Your task to perform on an android device: check the backup settings in the google photos Image 0: 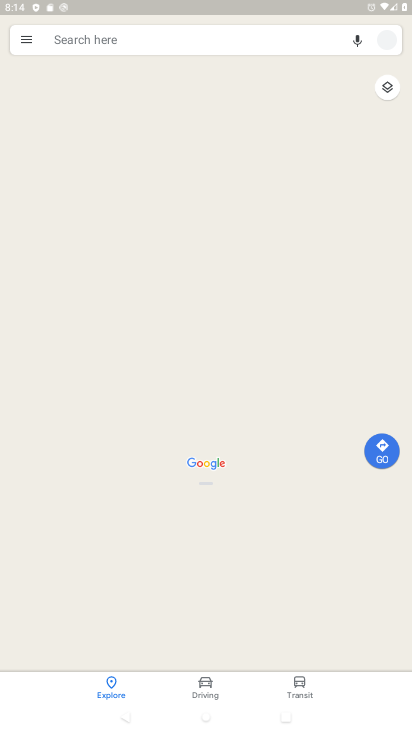
Step 0: press home button
Your task to perform on an android device: check the backup settings in the google photos Image 1: 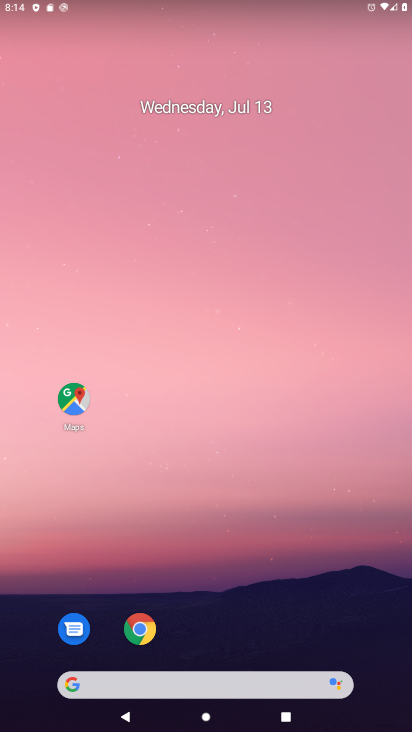
Step 1: drag from (322, 500) to (279, 13)
Your task to perform on an android device: check the backup settings in the google photos Image 2: 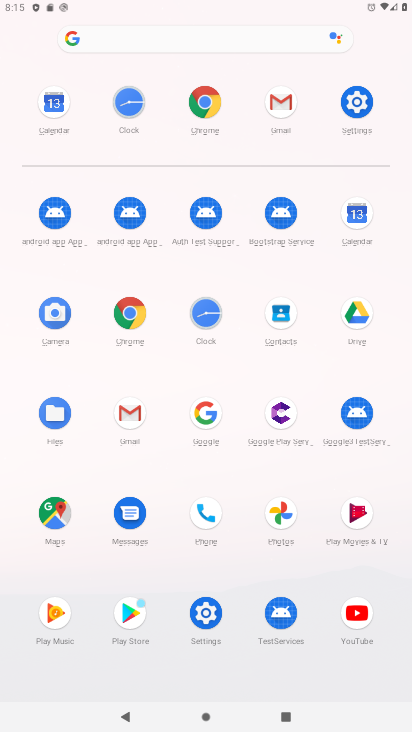
Step 2: click (284, 504)
Your task to perform on an android device: check the backup settings in the google photos Image 3: 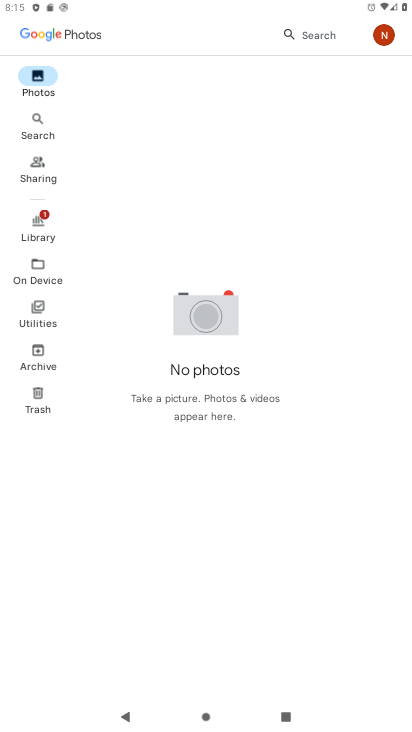
Step 3: click (383, 50)
Your task to perform on an android device: check the backup settings in the google photos Image 4: 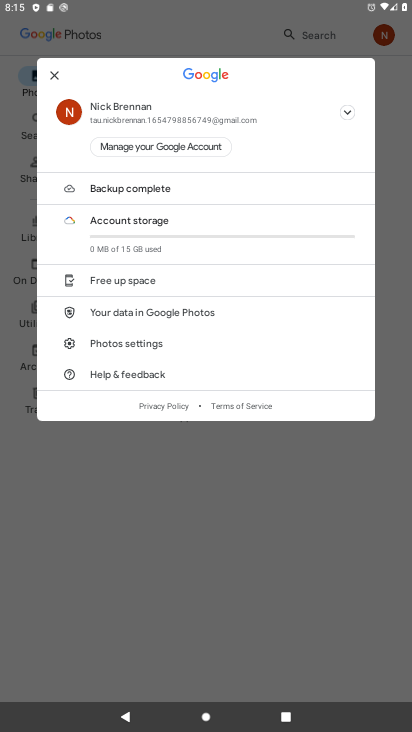
Step 4: click (121, 340)
Your task to perform on an android device: check the backup settings in the google photos Image 5: 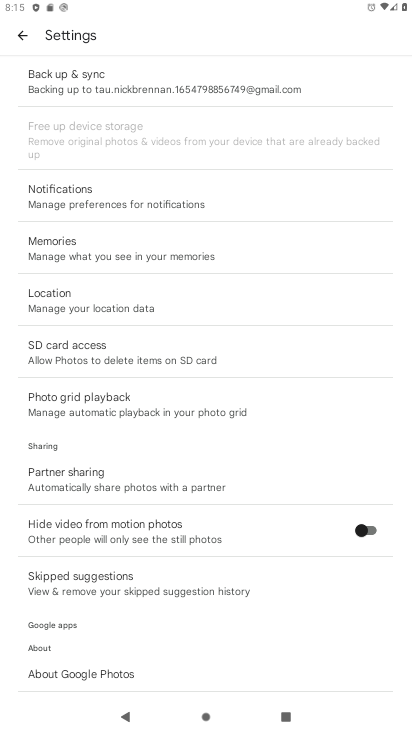
Step 5: click (117, 81)
Your task to perform on an android device: check the backup settings in the google photos Image 6: 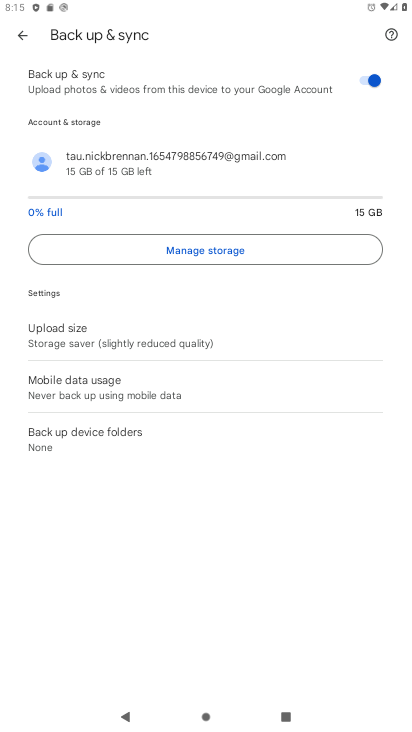
Step 6: task complete